Your task to perform on an android device: Go to Google Image 0: 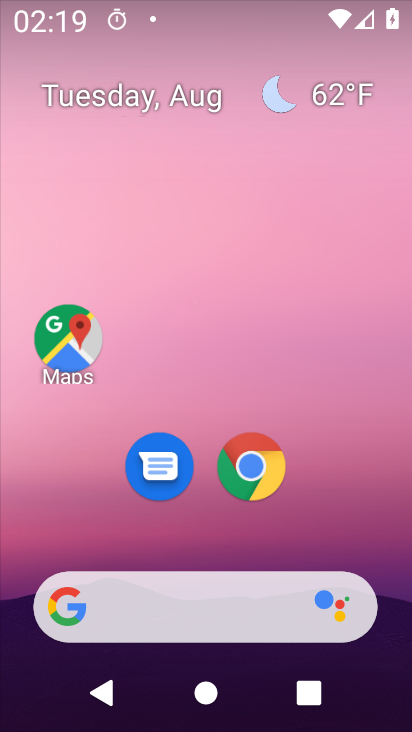
Step 0: press home button
Your task to perform on an android device: Go to Google Image 1: 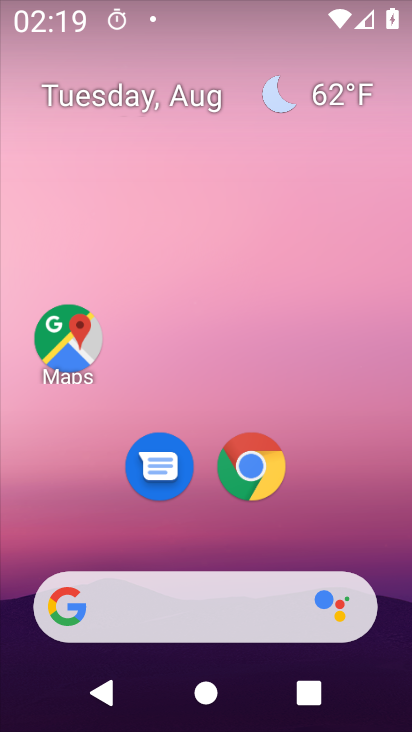
Step 1: drag from (388, 581) to (408, 183)
Your task to perform on an android device: Go to Google Image 2: 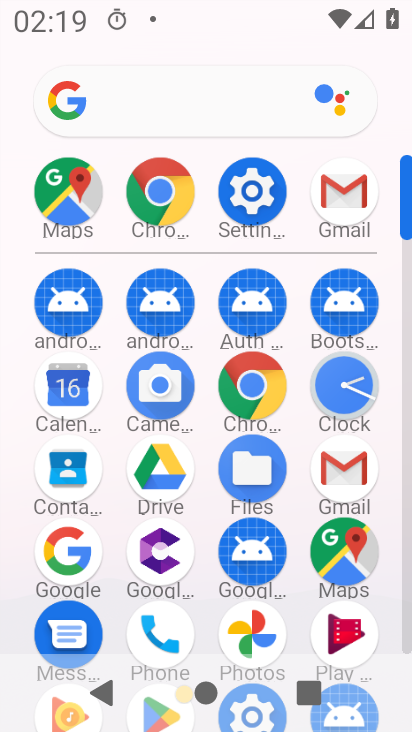
Step 2: click (67, 564)
Your task to perform on an android device: Go to Google Image 3: 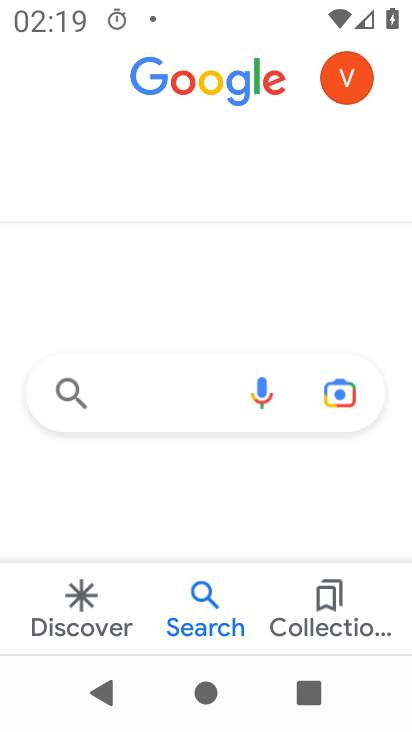
Step 3: task complete